Your task to perform on an android device: Search for pizza restaurants on Maps Image 0: 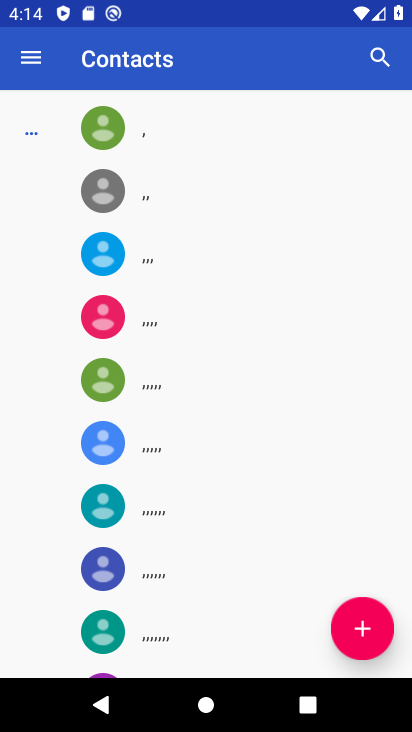
Step 0: press home button
Your task to perform on an android device: Search for pizza restaurants on Maps Image 1: 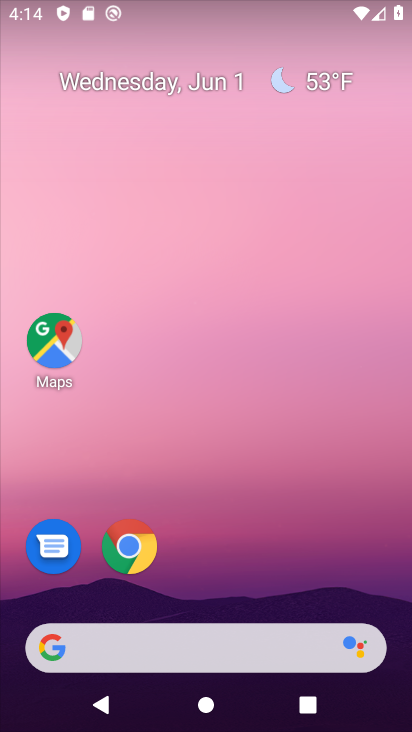
Step 1: click (45, 381)
Your task to perform on an android device: Search for pizza restaurants on Maps Image 2: 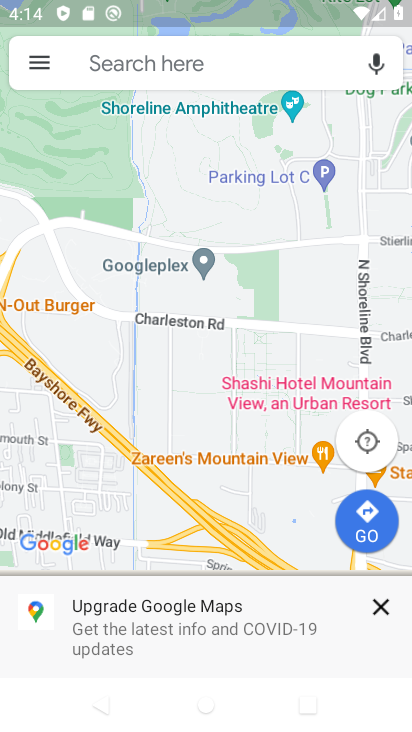
Step 2: click (149, 58)
Your task to perform on an android device: Search for pizza restaurants on Maps Image 3: 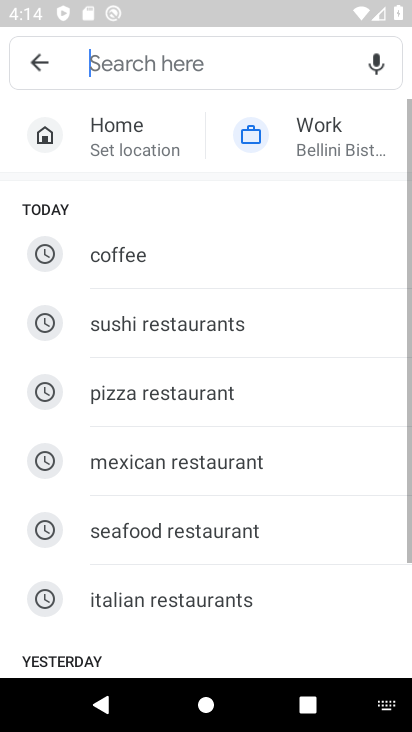
Step 3: click (103, 64)
Your task to perform on an android device: Search for pizza restaurants on Maps Image 4: 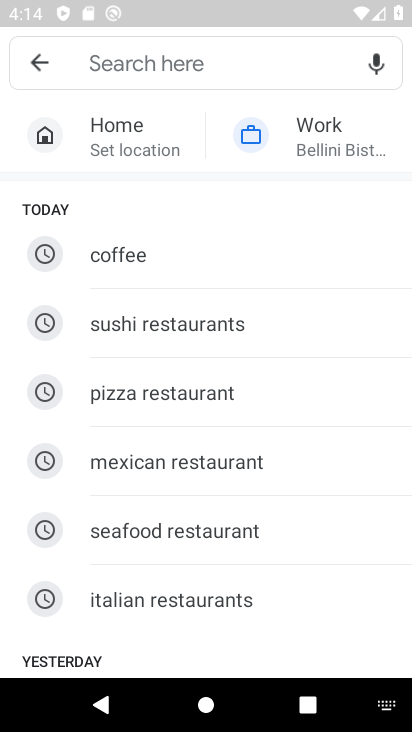
Step 4: click (138, 60)
Your task to perform on an android device: Search for pizza restaurants on Maps Image 5: 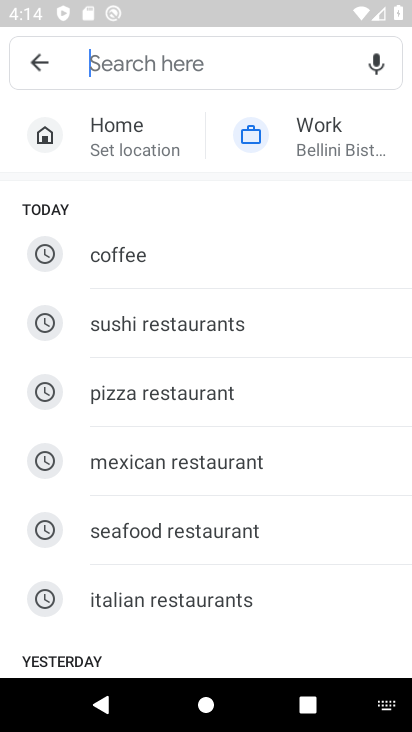
Step 5: click (160, 400)
Your task to perform on an android device: Search for pizza restaurants on Maps Image 6: 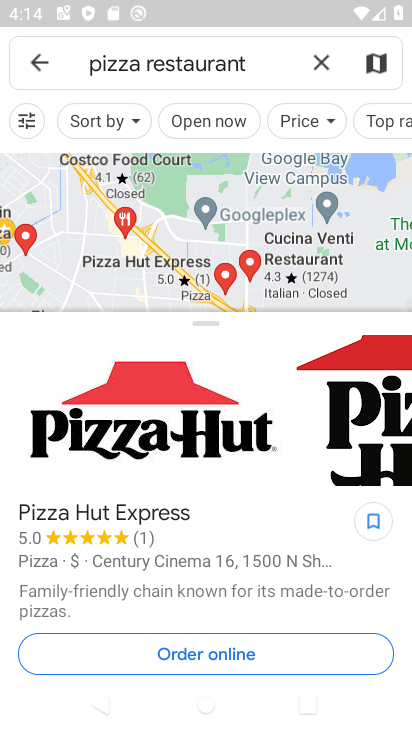
Step 6: task complete